Your task to perform on an android device: What is the news today? Image 0: 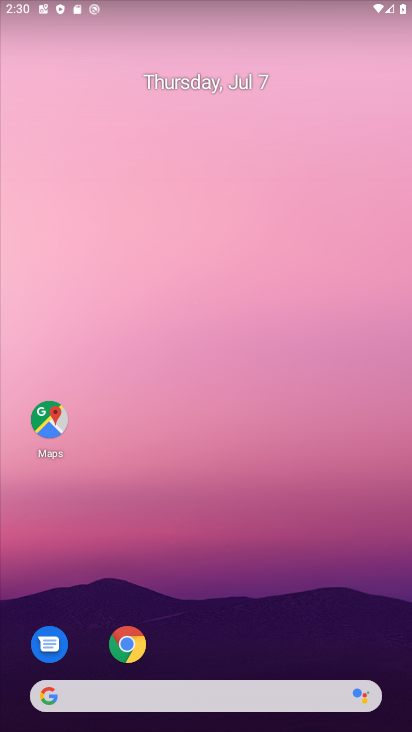
Step 0: press home button
Your task to perform on an android device: What is the news today? Image 1: 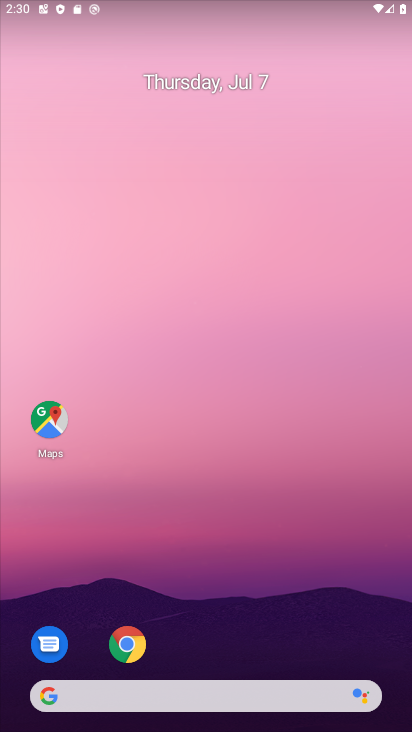
Step 1: click (41, 697)
Your task to perform on an android device: What is the news today? Image 2: 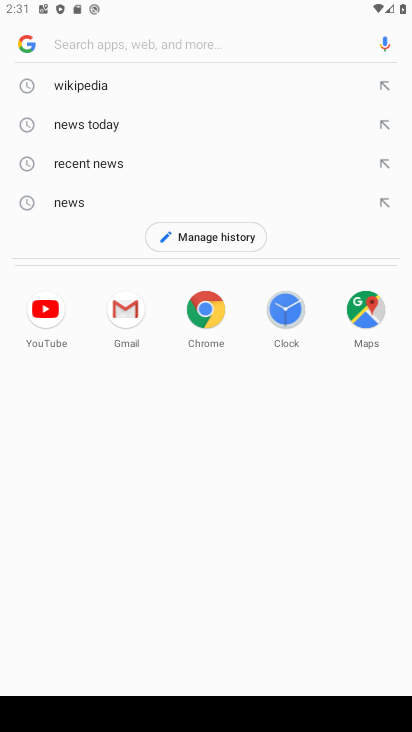
Step 2: click (72, 123)
Your task to perform on an android device: What is the news today? Image 3: 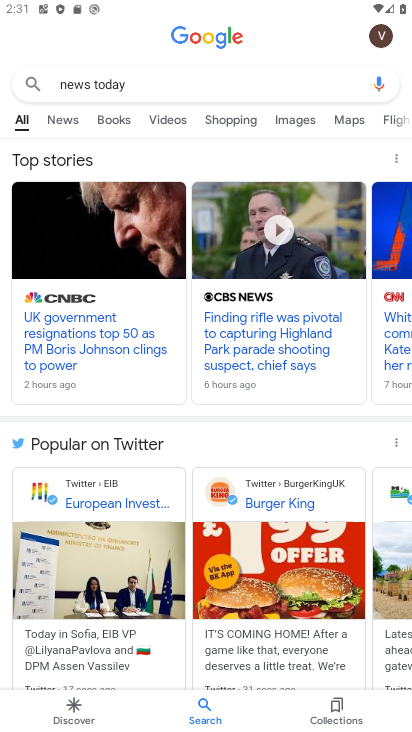
Step 3: task complete